Your task to perform on an android device: turn off notifications settings in the gmail app Image 0: 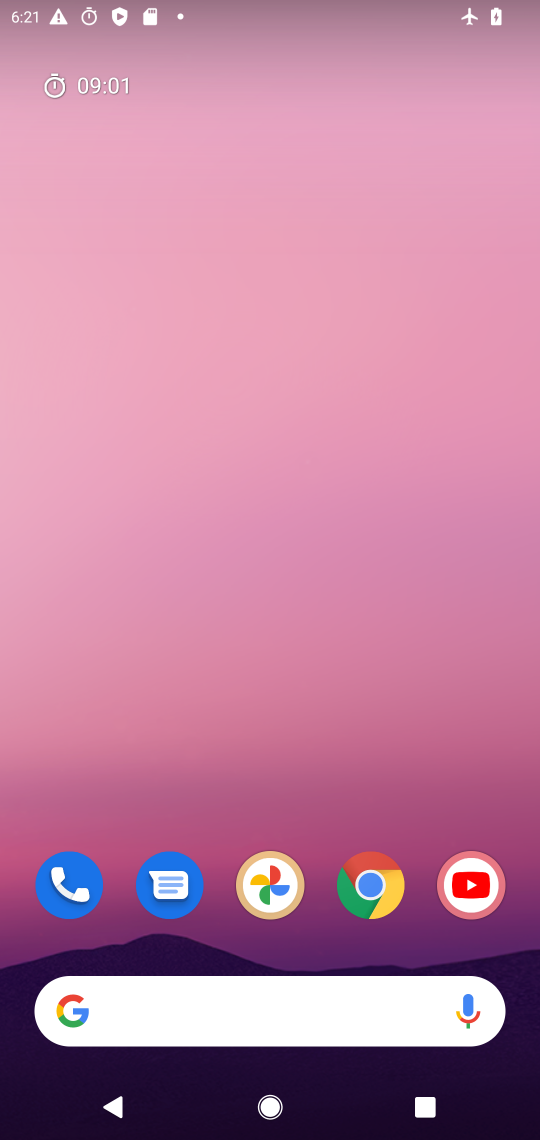
Step 0: drag from (214, 945) to (302, 16)
Your task to perform on an android device: turn off notifications settings in the gmail app Image 1: 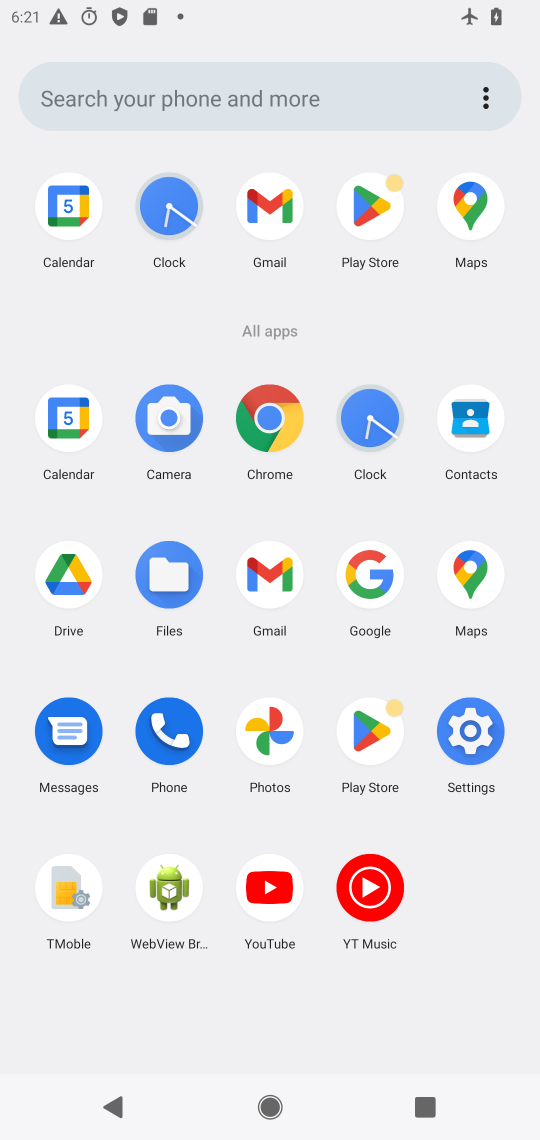
Step 1: click (276, 587)
Your task to perform on an android device: turn off notifications settings in the gmail app Image 2: 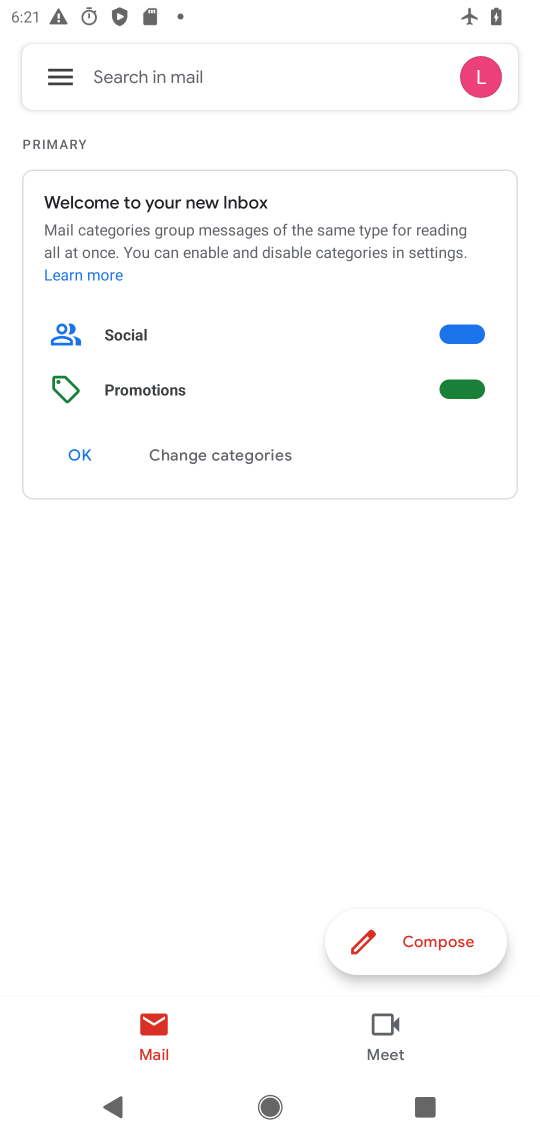
Step 2: click (57, 81)
Your task to perform on an android device: turn off notifications settings in the gmail app Image 3: 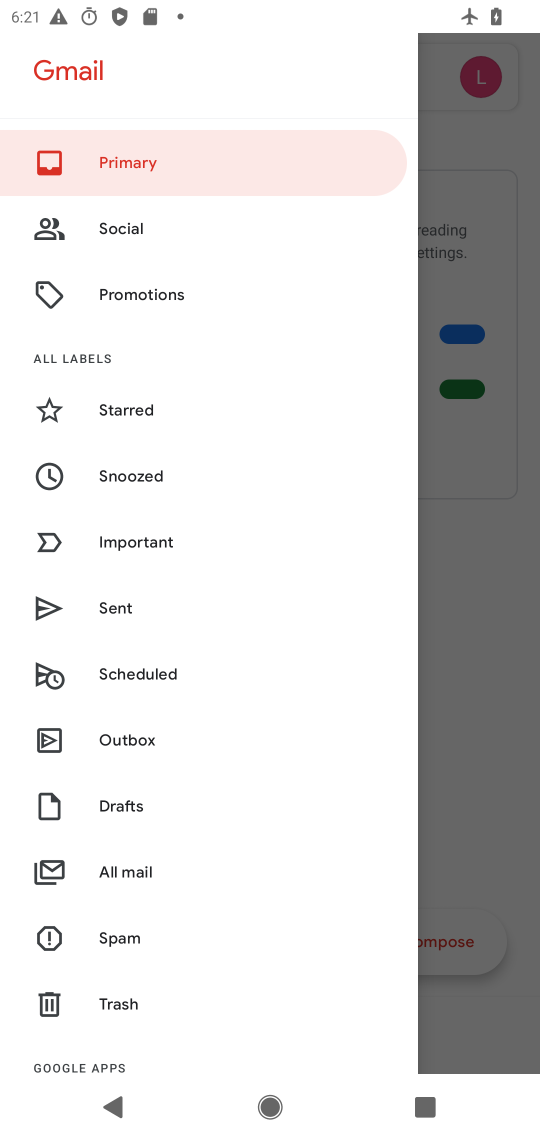
Step 3: drag from (135, 882) to (145, 373)
Your task to perform on an android device: turn off notifications settings in the gmail app Image 4: 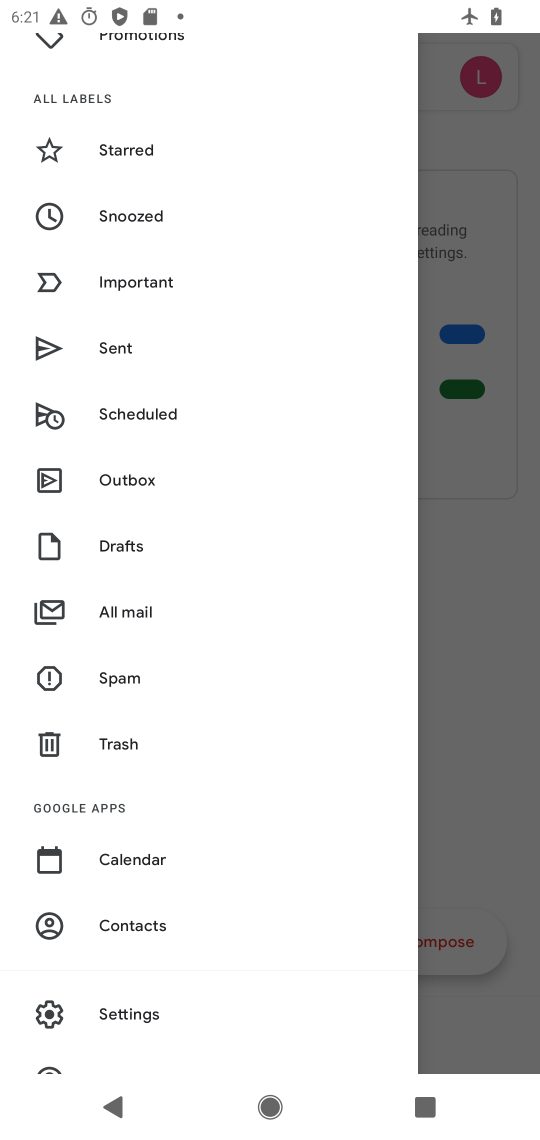
Step 4: click (131, 1016)
Your task to perform on an android device: turn off notifications settings in the gmail app Image 5: 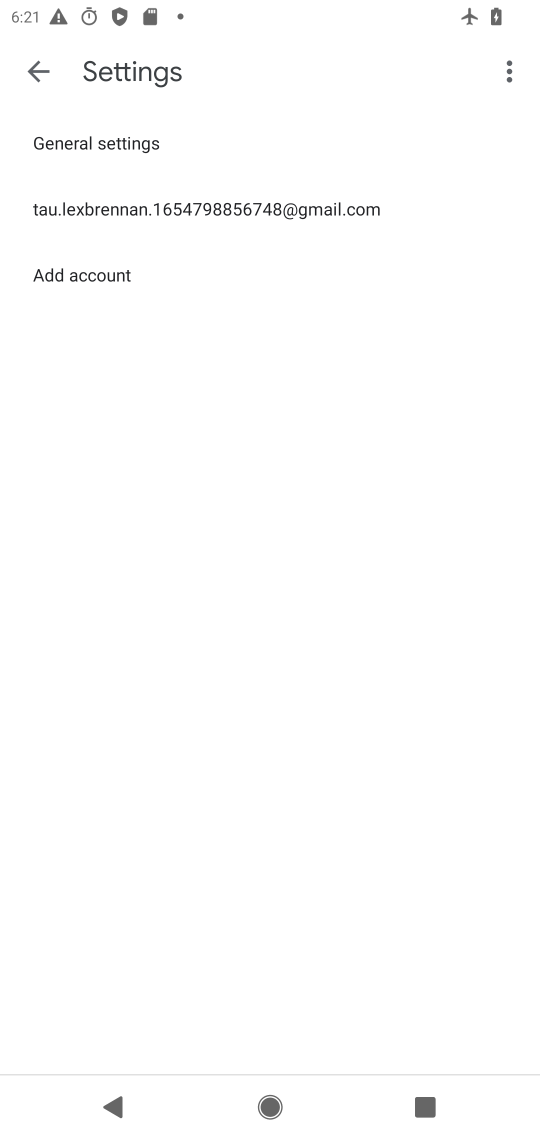
Step 5: click (131, 145)
Your task to perform on an android device: turn off notifications settings in the gmail app Image 6: 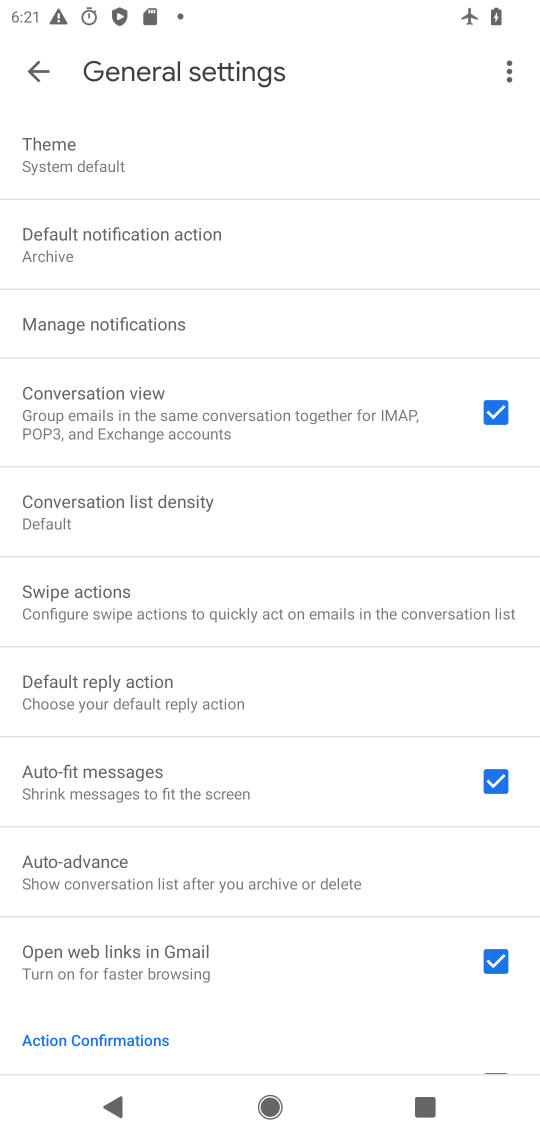
Step 6: click (118, 330)
Your task to perform on an android device: turn off notifications settings in the gmail app Image 7: 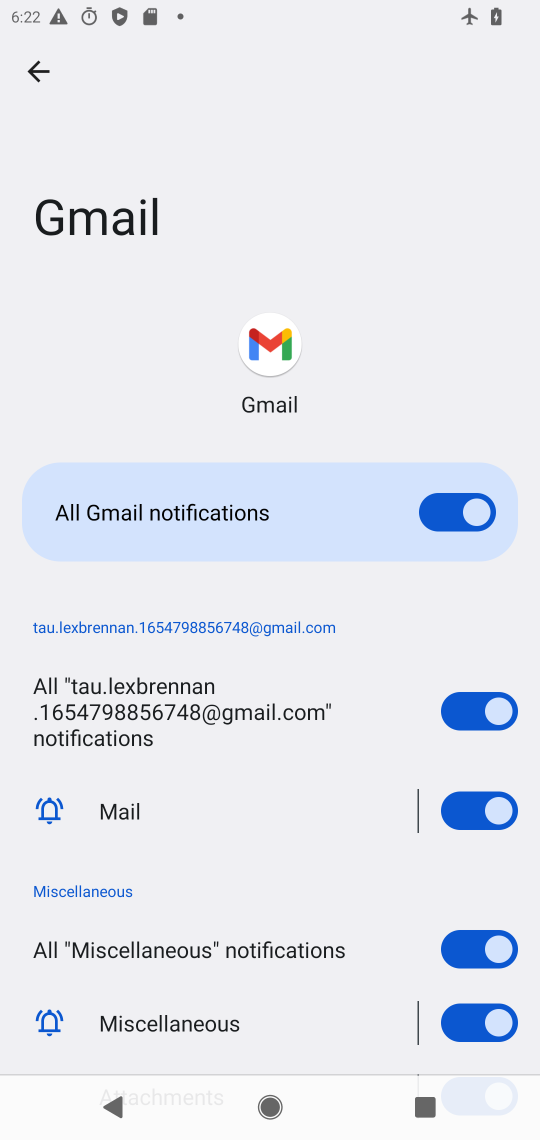
Step 7: click (417, 513)
Your task to perform on an android device: turn off notifications settings in the gmail app Image 8: 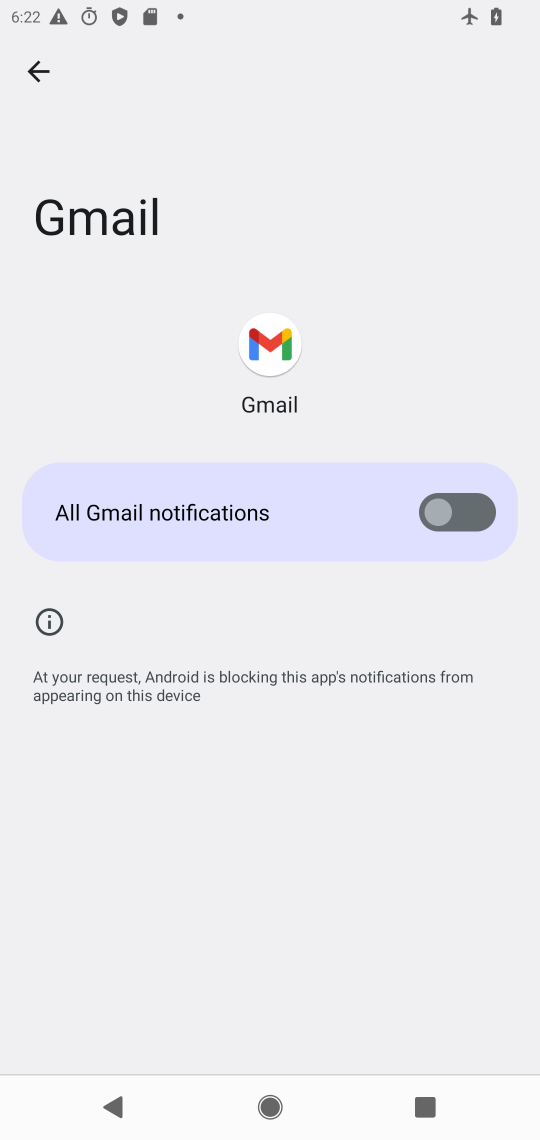
Step 8: task complete